Your task to perform on an android device: Open calendar and show me the third week of next month Image 0: 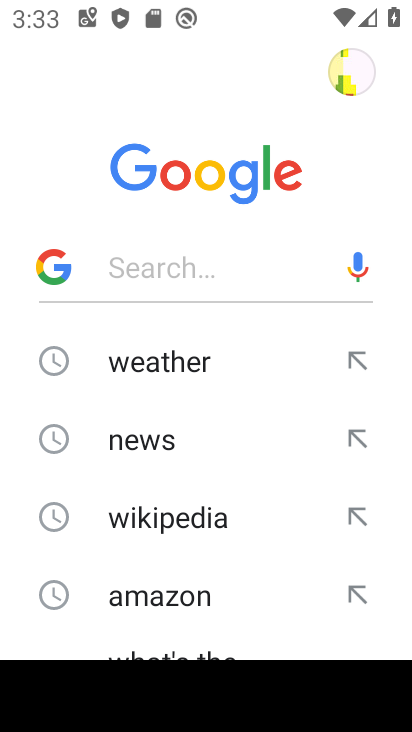
Step 0: press home button
Your task to perform on an android device: Open calendar and show me the third week of next month Image 1: 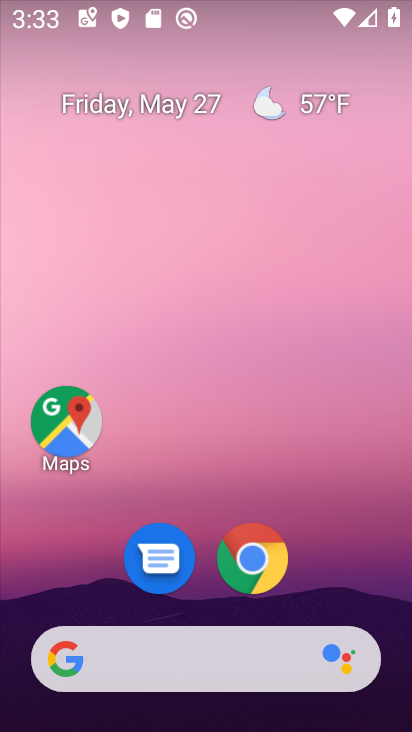
Step 1: drag from (348, 581) to (357, 131)
Your task to perform on an android device: Open calendar and show me the third week of next month Image 2: 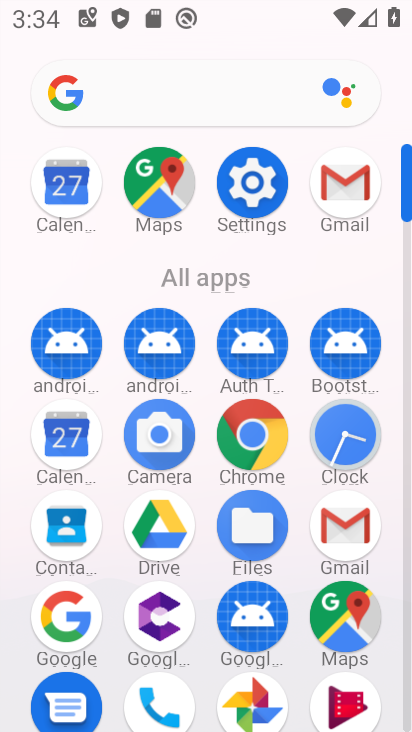
Step 2: click (44, 215)
Your task to perform on an android device: Open calendar and show me the third week of next month Image 3: 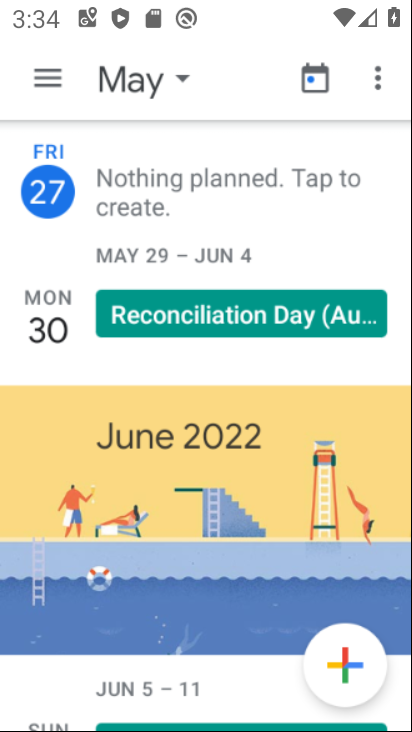
Step 3: task complete